Your task to perform on an android device: Open Google Maps Image 0: 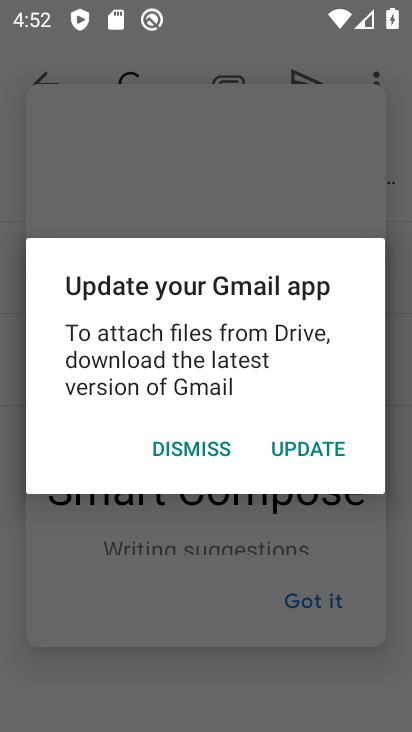
Step 0: press home button
Your task to perform on an android device: Open Google Maps Image 1: 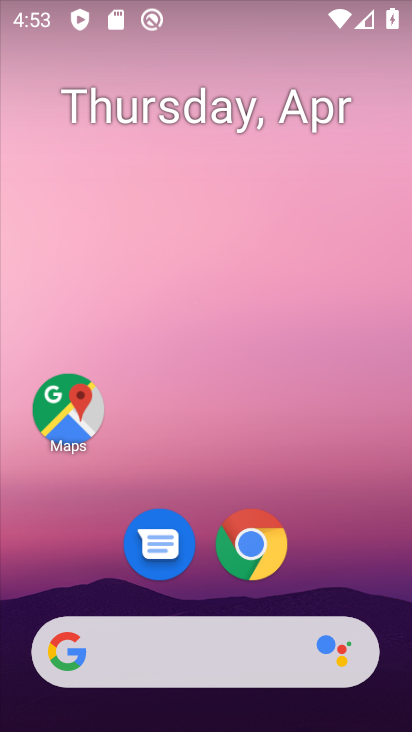
Step 1: click (49, 393)
Your task to perform on an android device: Open Google Maps Image 2: 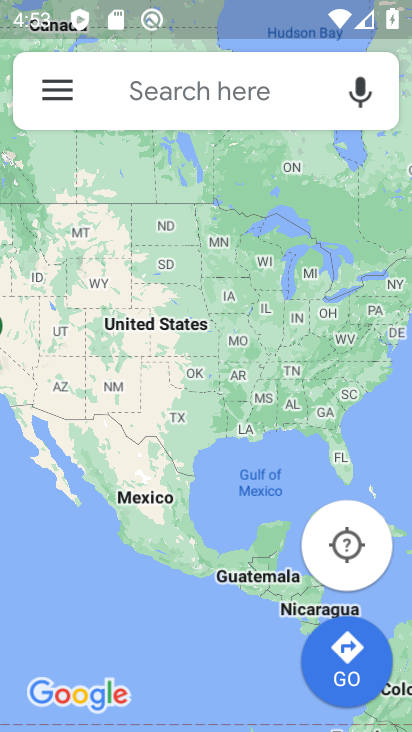
Step 2: task complete